Your task to perform on an android device: turn off wifi Image 0: 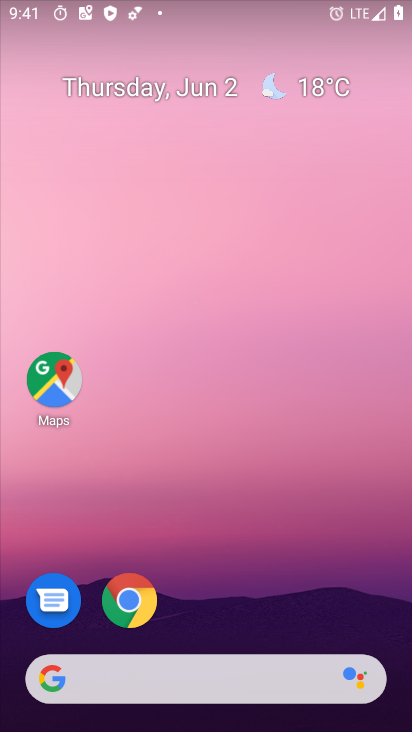
Step 0: drag from (365, 616) to (356, 160)
Your task to perform on an android device: turn off wifi Image 1: 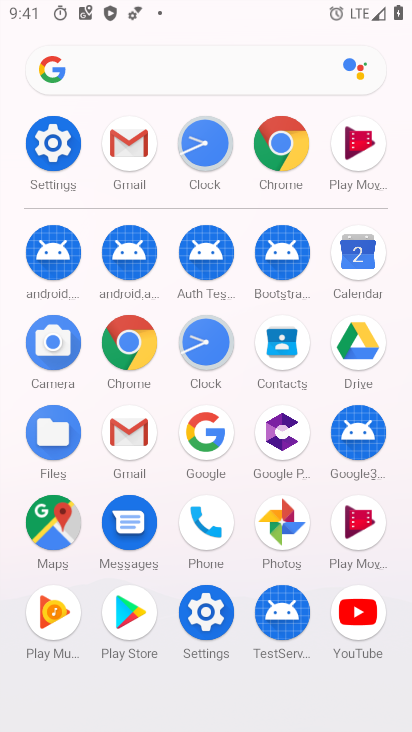
Step 1: click (210, 618)
Your task to perform on an android device: turn off wifi Image 2: 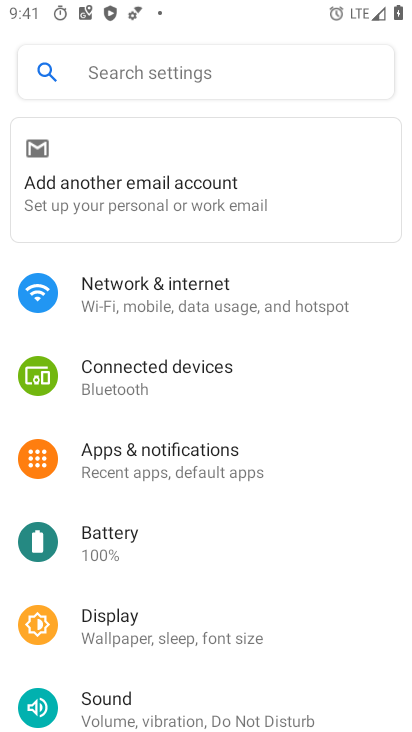
Step 2: drag from (345, 514) to (359, 398)
Your task to perform on an android device: turn off wifi Image 3: 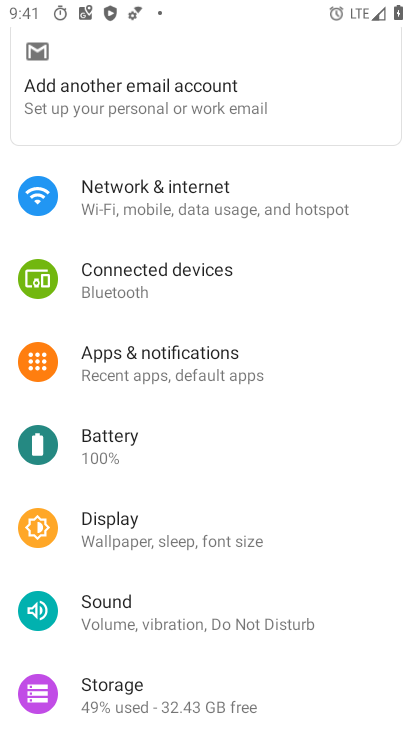
Step 3: drag from (351, 548) to (349, 432)
Your task to perform on an android device: turn off wifi Image 4: 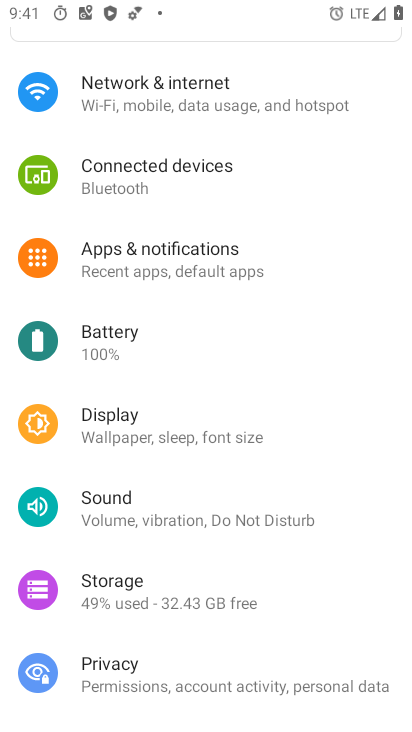
Step 4: drag from (360, 591) to (362, 471)
Your task to perform on an android device: turn off wifi Image 5: 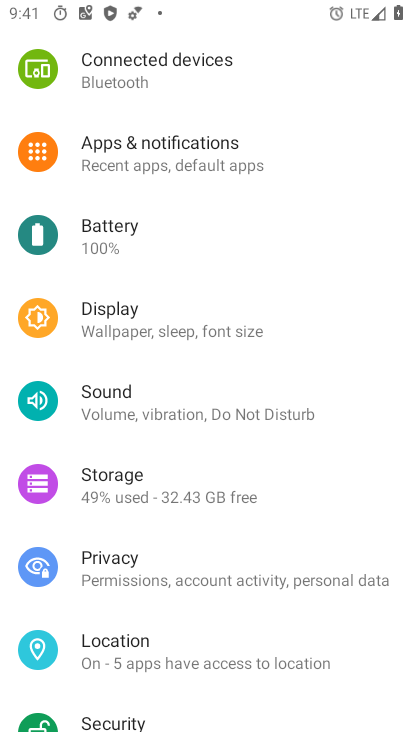
Step 5: drag from (367, 627) to (364, 491)
Your task to perform on an android device: turn off wifi Image 6: 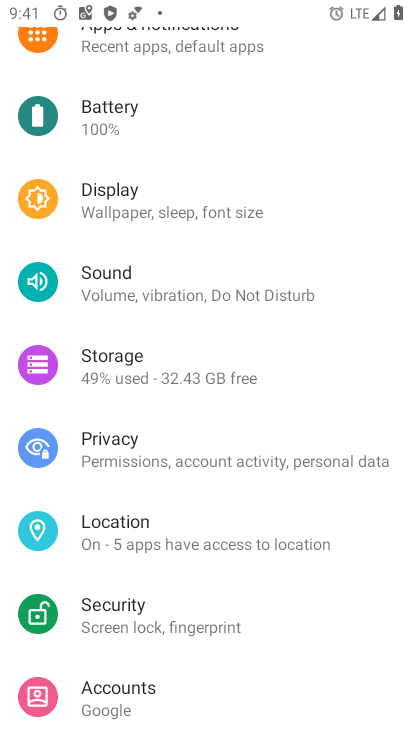
Step 6: drag from (368, 562) to (369, 486)
Your task to perform on an android device: turn off wifi Image 7: 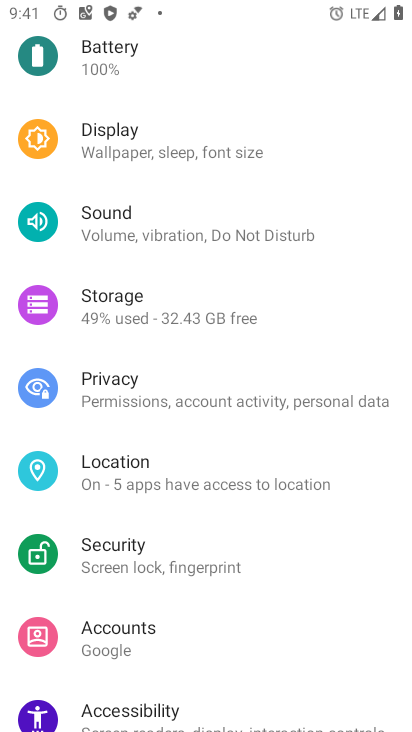
Step 7: drag from (332, 596) to (341, 483)
Your task to perform on an android device: turn off wifi Image 8: 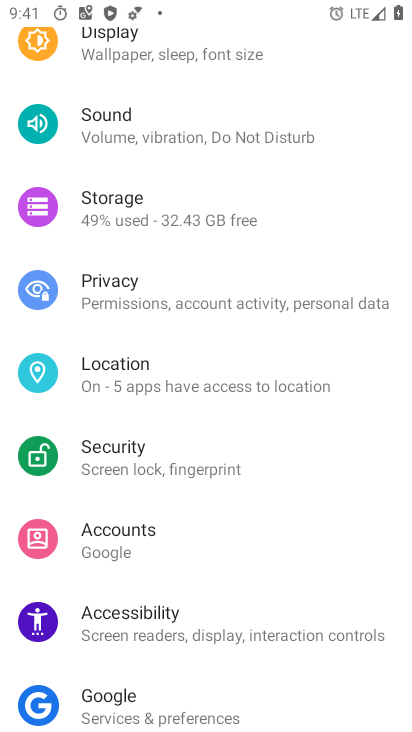
Step 8: drag from (354, 678) to (361, 429)
Your task to perform on an android device: turn off wifi Image 9: 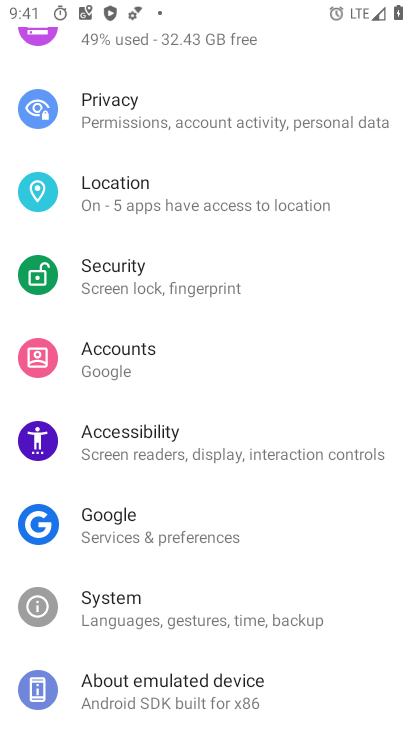
Step 9: drag from (355, 326) to (357, 477)
Your task to perform on an android device: turn off wifi Image 10: 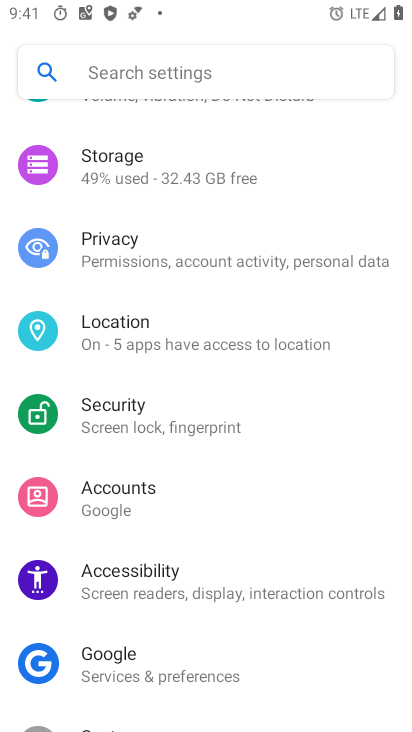
Step 10: drag from (348, 299) to (357, 435)
Your task to perform on an android device: turn off wifi Image 11: 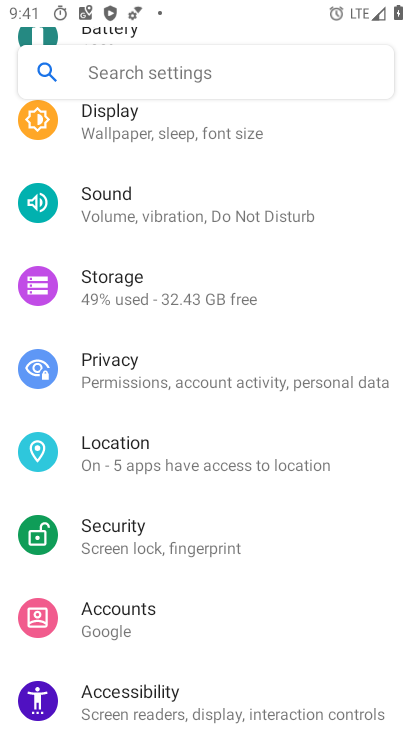
Step 11: drag from (360, 255) to (360, 405)
Your task to perform on an android device: turn off wifi Image 12: 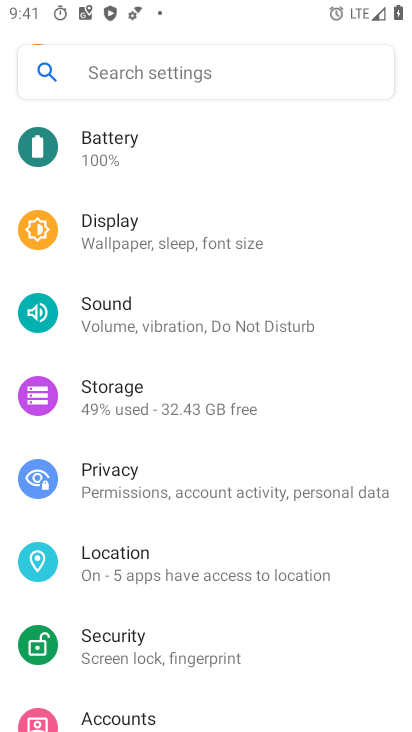
Step 12: drag from (344, 262) to (348, 417)
Your task to perform on an android device: turn off wifi Image 13: 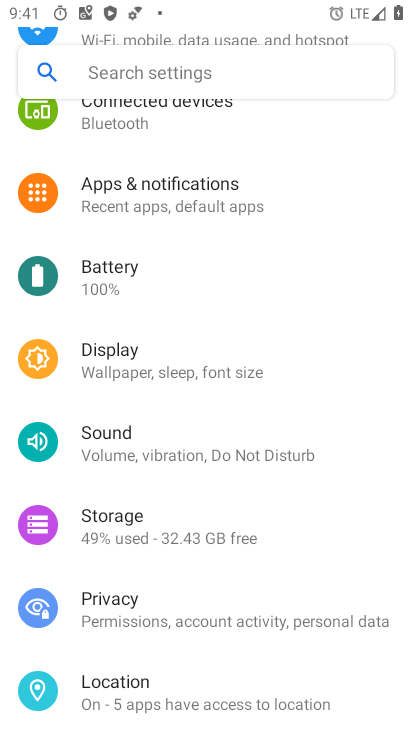
Step 13: drag from (343, 267) to (339, 391)
Your task to perform on an android device: turn off wifi Image 14: 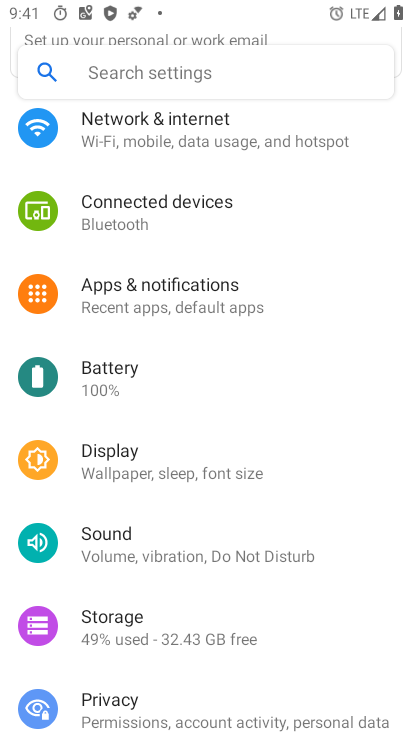
Step 14: drag from (323, 206) to (323, 361)
Your task to perform on an android device: turn off wifi Image 15: 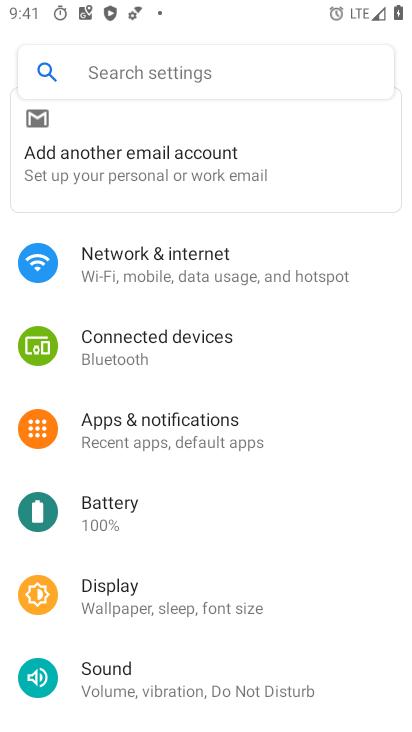
Step 15: drag from (333, 218) to (348, 386)
Your task to perform on an android device: turn off wifi Image 16: 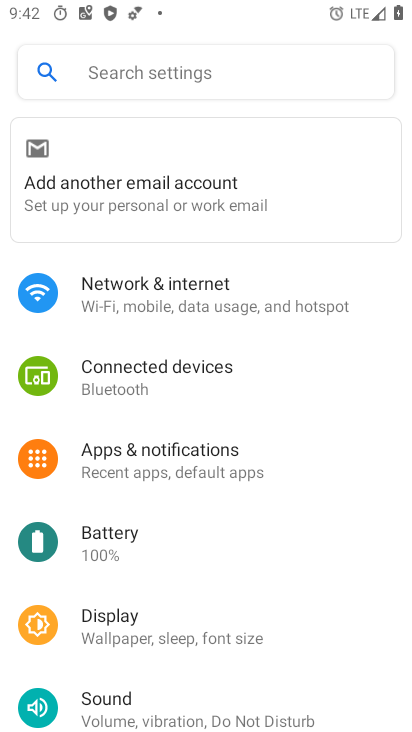
Step 16: click (222, 305)
Your task to perform on an android device: turn off wifi Image 17: 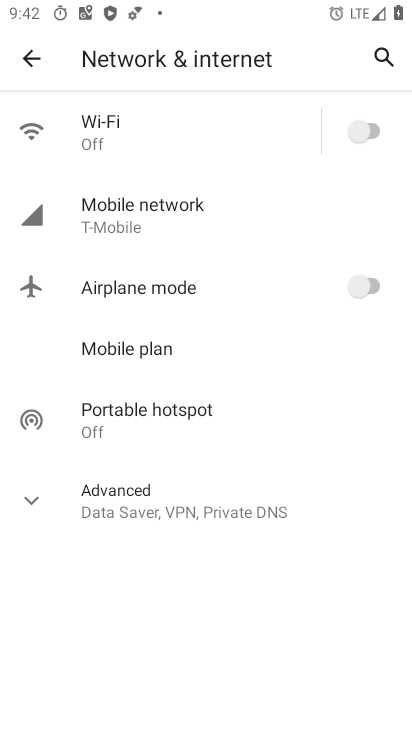
Step 17: task complete